Your task to perform on an android device: change the upload size in google photos Image 0: 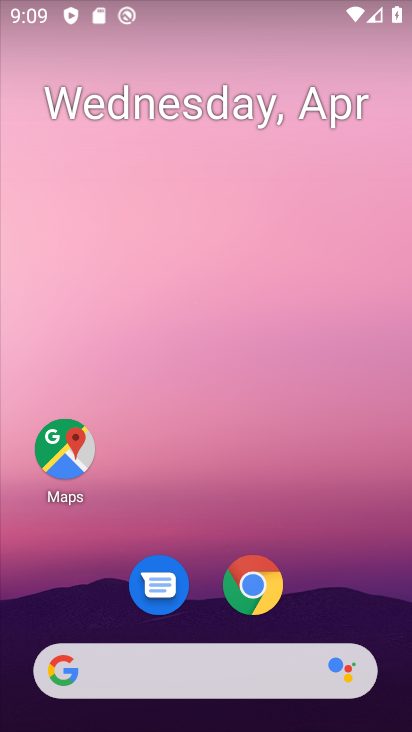
Step 0: drag from (327, 571) to (285, 93)
Your task to perform on an android device: change the upload size in google photos Image 1: 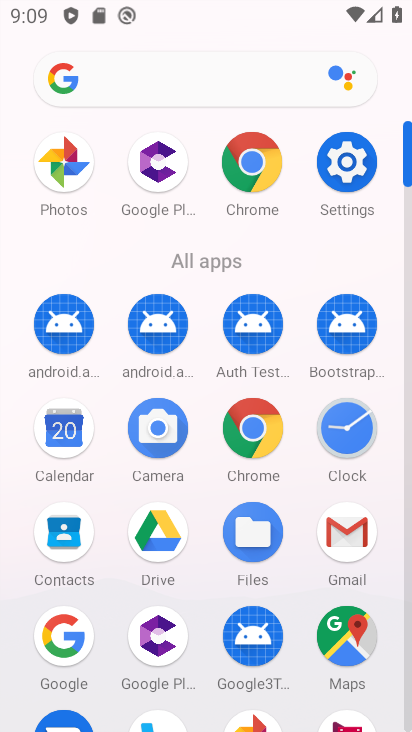
Step 1: click (62, 159)
Your task to perform on an android device: change the upload size in google photos Image 2: 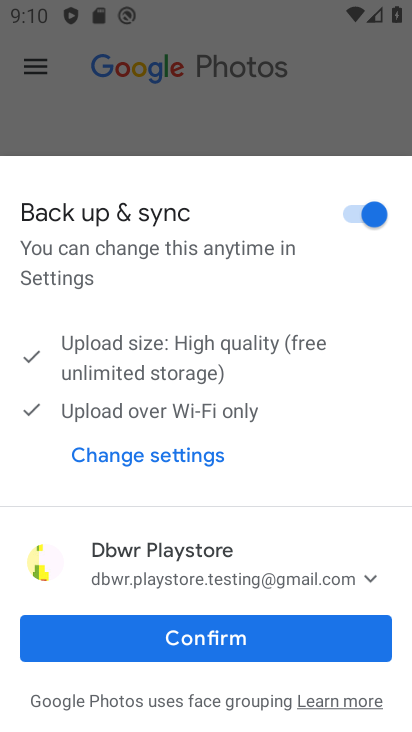
Step 2: click (284, 632)
Your task to perform on an android device: change the upload size in google photos Image 3: 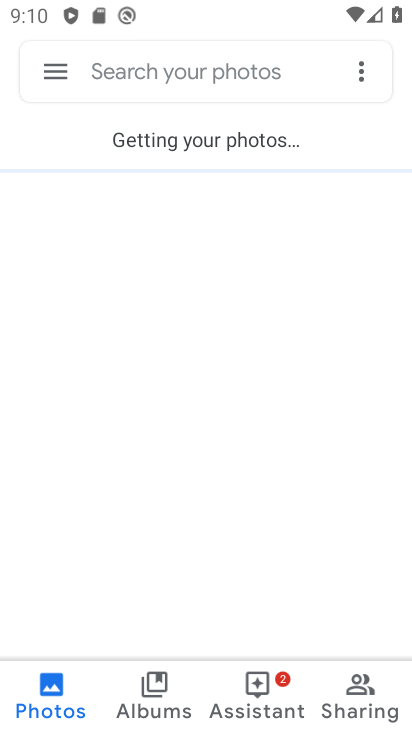
Step 3: click (58, 71)
Your task to perform on an android device: change the upload size in google photos Image 4: 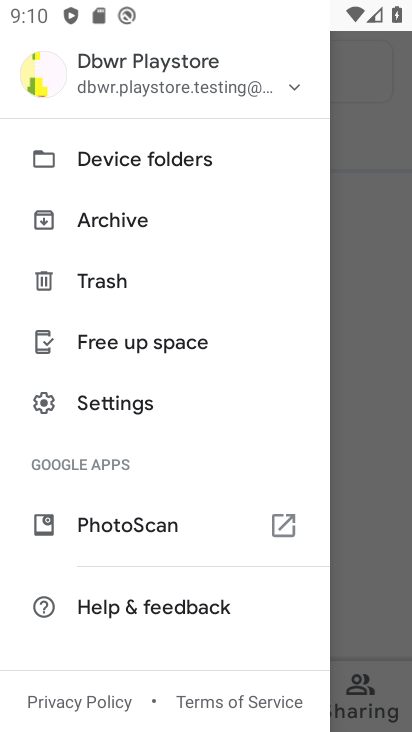
Step 4: click (127, 389)
Your task to perform on an android device: change the upload size in google photos Image 5: 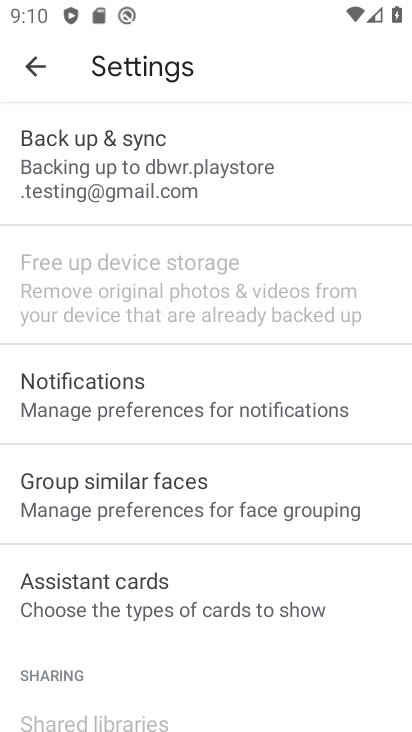
Step 5: click (177, 167)
Your task to perform on an android device: change the upload size in google photos Image 6: 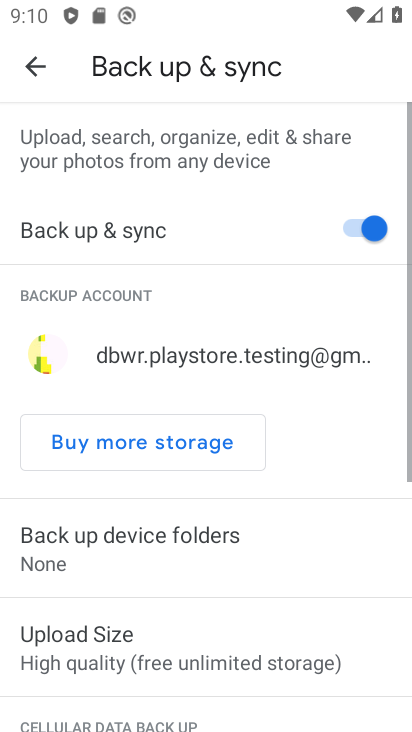
Step 6: drag from (201, 582) to (185, 207)
Your task to perform on an android device: change the upload size in google photos Image 7: 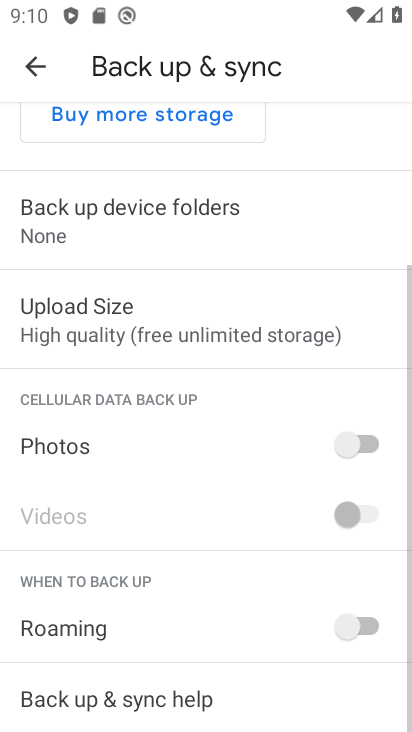
Step 7: click (173, 312)
Your task to perform on an android device: change the upload size in google photos Image 8: 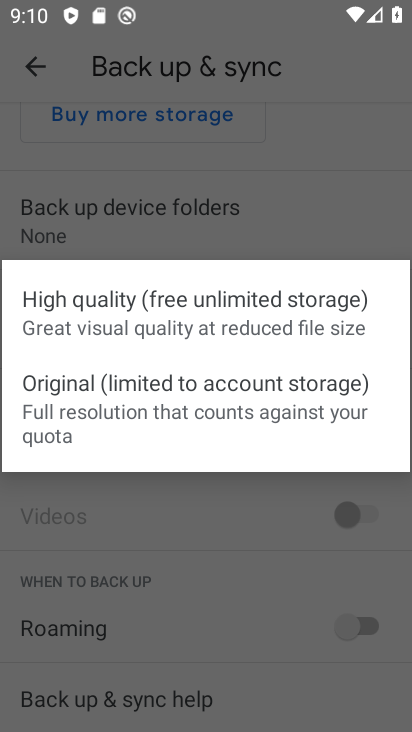
Step 8: click (355, 212)
Your task to perform on an android device: change the upload size in google photos Image 9: 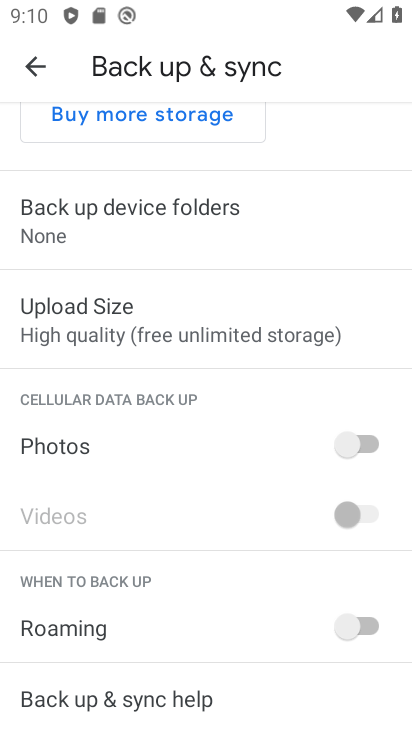
Step 9: click (292, 324)
Your task to perform on an android device: change the upload size in google photos Image 10: 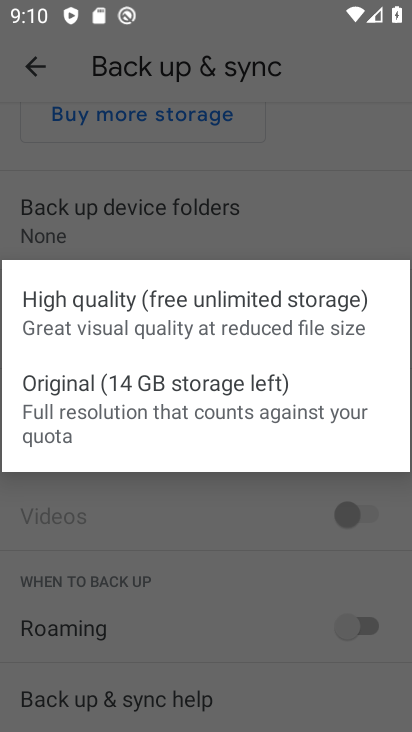
Step 10: click (236, 392)
Your task to perform on an android device: change the upload size in google photos Image 11: 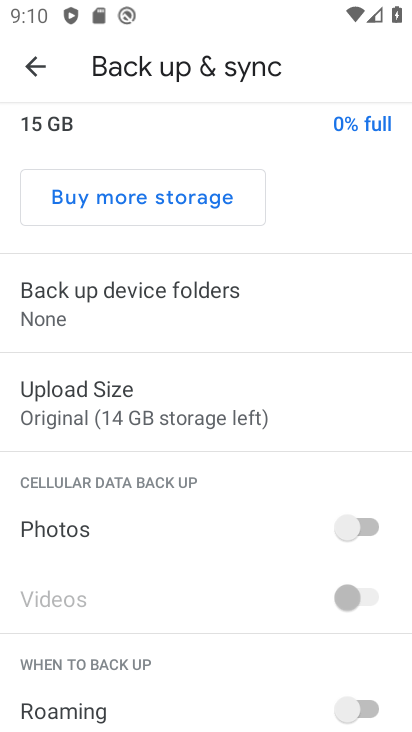
Step 11: task complete